Your task to perform on an android device: delete a single message in the gmail app Image 0: 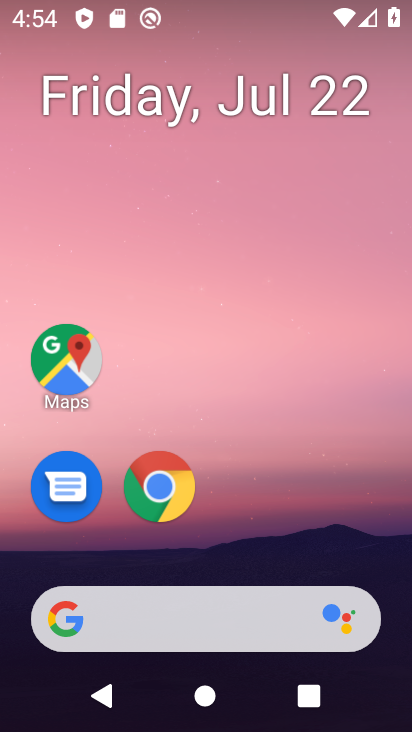
Step 0: drag from (333, 563) to (279, 108)
Your task to perform on an android device: delete a single message in the gmail app Image 1: 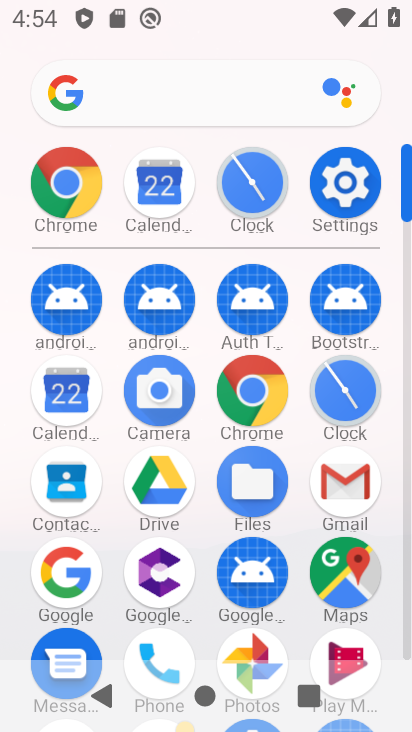
Step 1: click (348, 485)
Your task to perform on an android device: delete a single message in the gmail app Image 2: 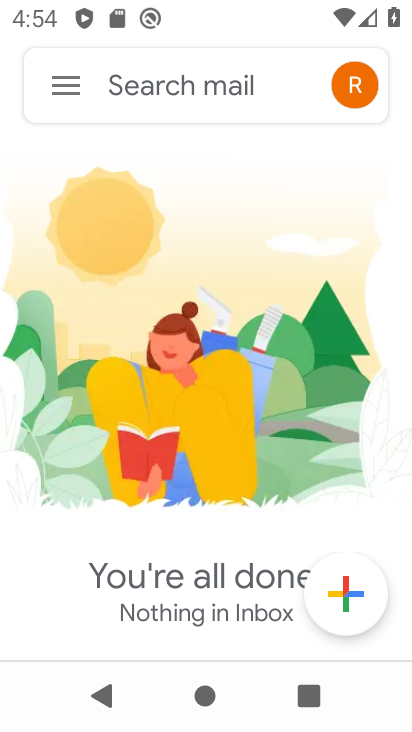
Step 2: task complete